Your task to perform on an android device: Open the stopwatch Image 0: 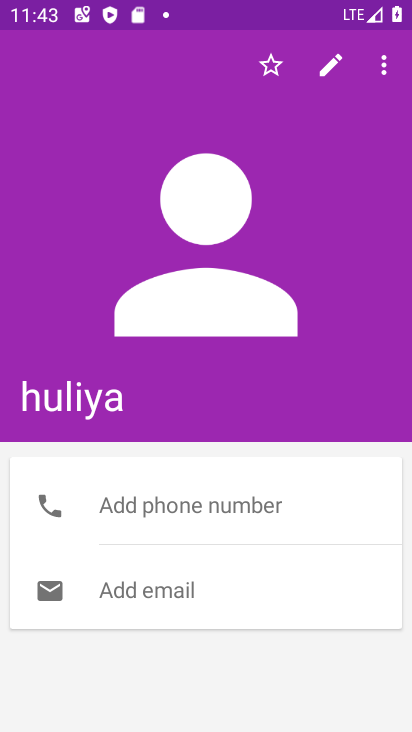
Step 0: press home button
Your task to perform on an android device: Open the stopwatch Image 1: 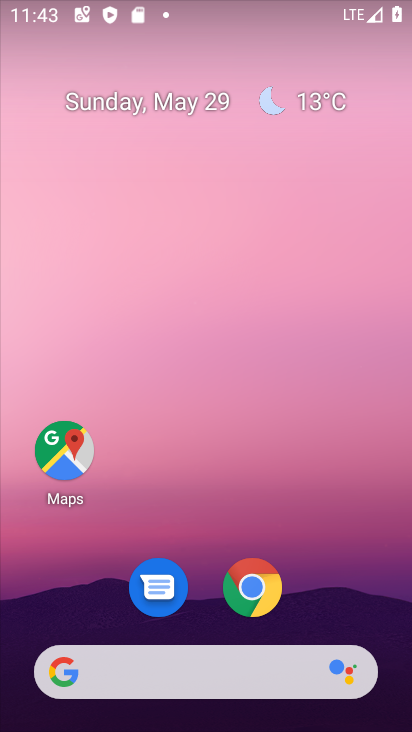
Step 1: drag from (352, 538) to (392, 1)
Your task to perform on an android device: Open the stopwatch Image 2: 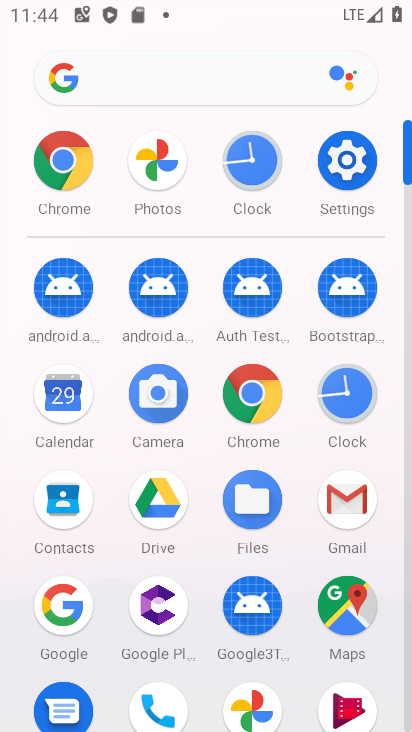
Step 2: click (263, 163)
Your task to perform on an android device: Open the stopwatch Image 3: 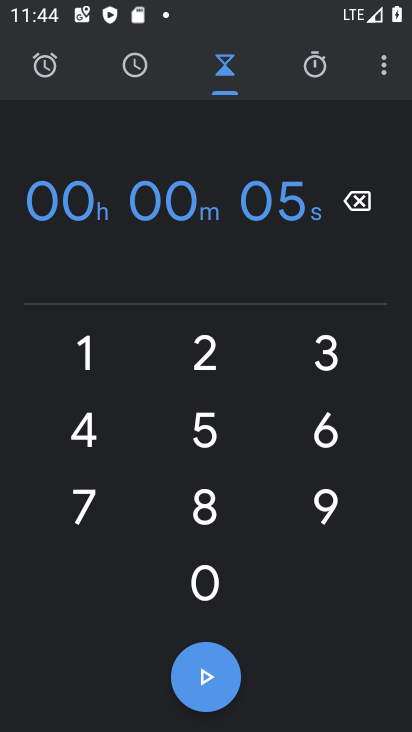
Step 3: click (323, 59)
Your task to perform on an android device: Open the stopwatch Image 4: 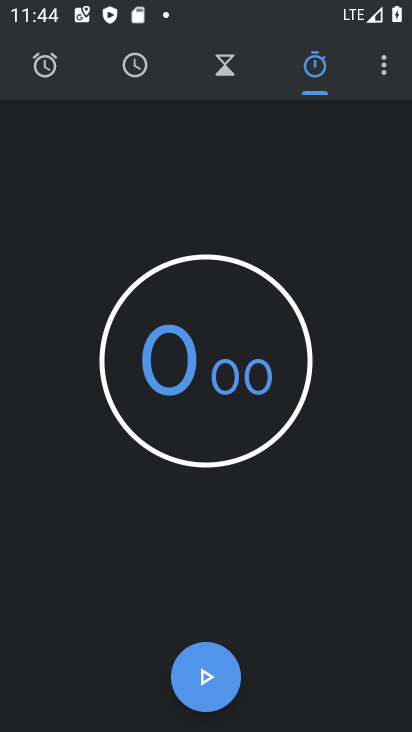
Step 4: click (209, 657)
Your task to perform on an android device: Open the stopwatch Image 5: 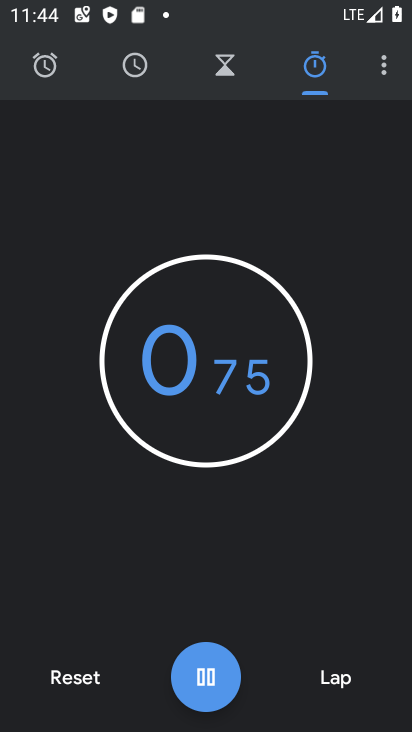
Step 5: click (217, 688)
Your task to perform on an android device: Open the stopwatch Image 6: 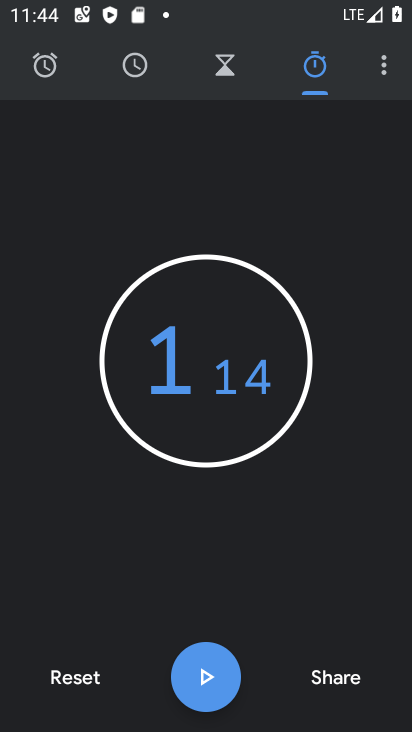
Step 6: task complete